Your task to perform on an android device: View the shopping cart on newegg.com. Image 0: 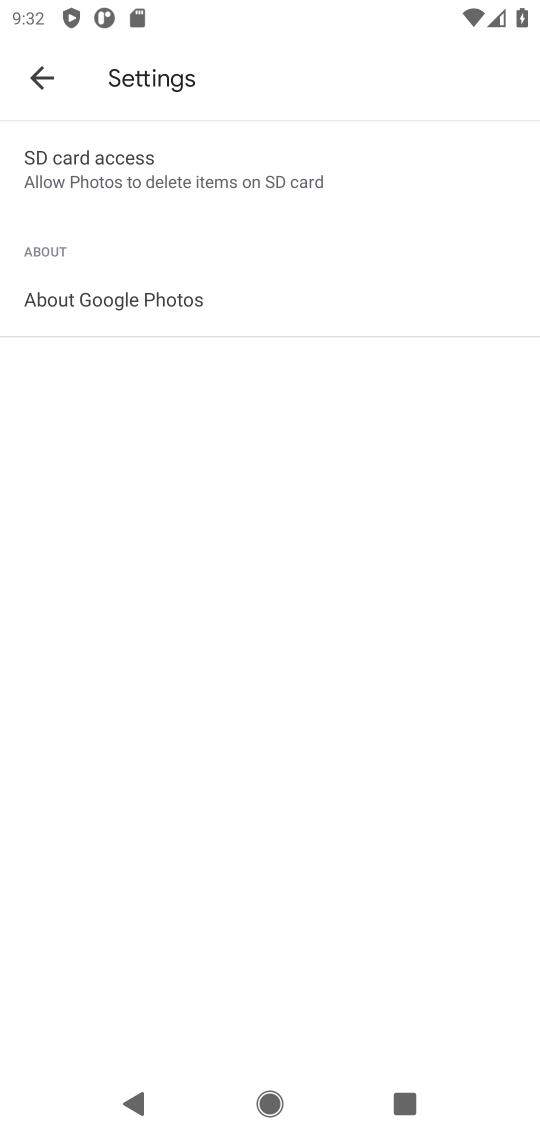
Step 0: press home button
Your task to perform on an android device: View the shopping cart on newegg.com. Image 1: 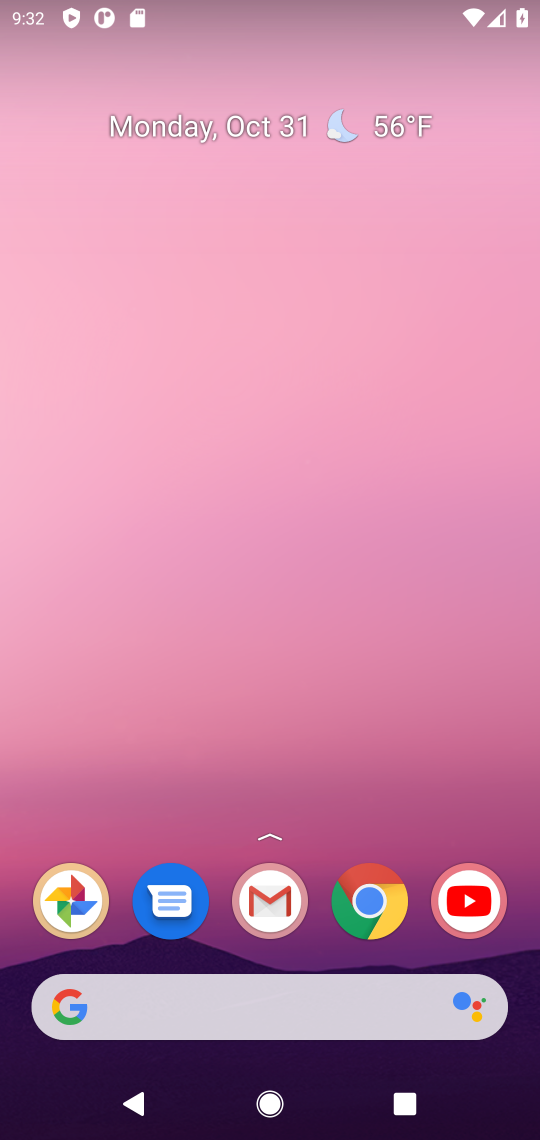
Step 1: drag from (224, 890) to (231, 267)
Your task to perform on an android device: View the shopping cart on newegg.com. Image 2: 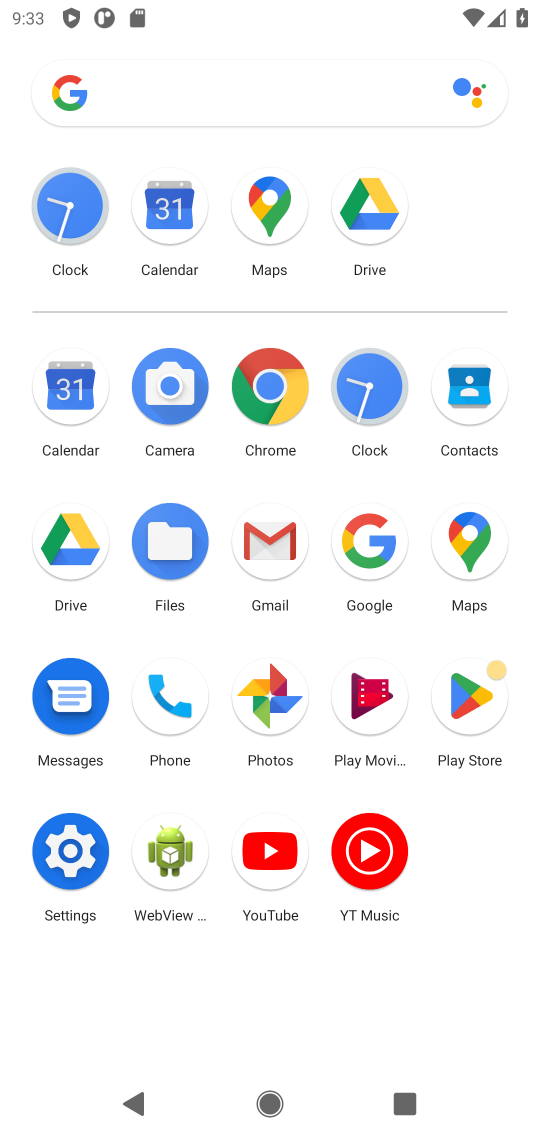
Step 2: click (362, 537)
Your task to perform on an android device: View the shopping cart on newegg.com. Image 3: 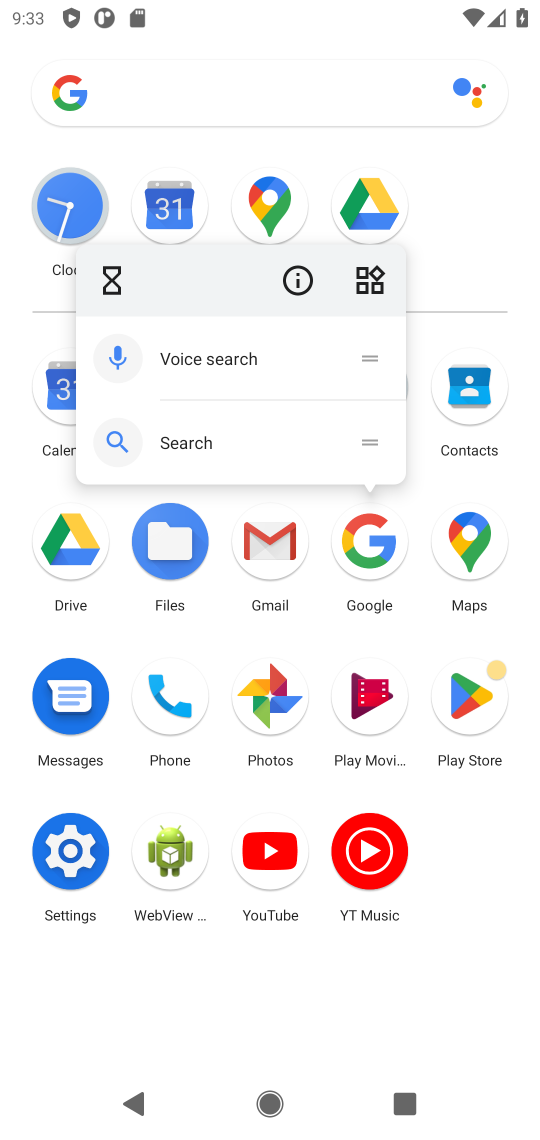
Step 3: click (368, 538)
Your task to perform on an android device: View the shopping cart on newegg.com. Image 4: 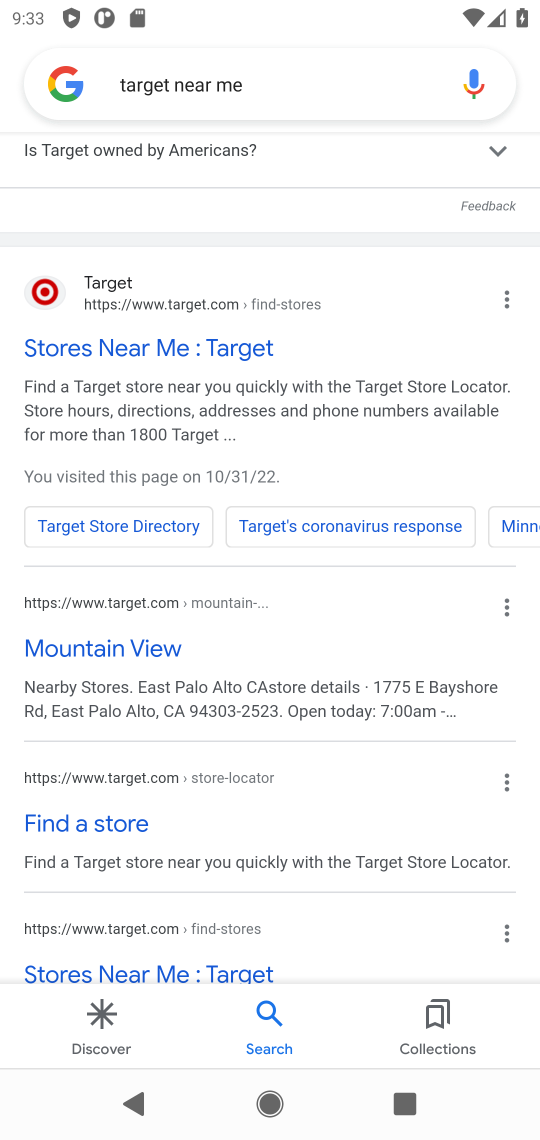
Step 4: click (282, 89)
Your task to perform on an android device: View the shopping cart on newegg.com. Image 5: 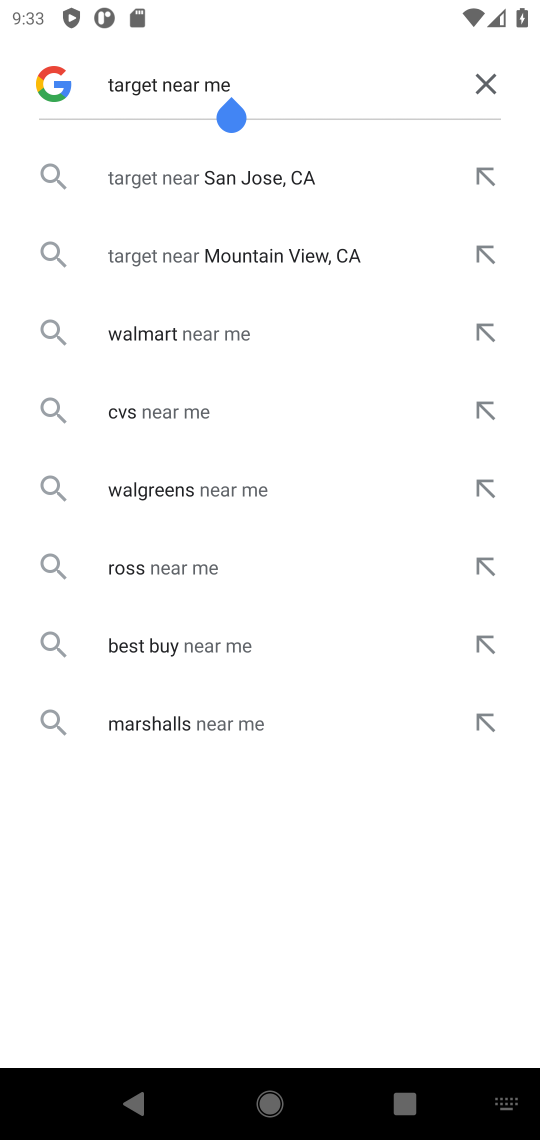
Step 5: click (498, 84)
Your task to perform on an android device: View the shopping cart on newegg.com. Image 6: 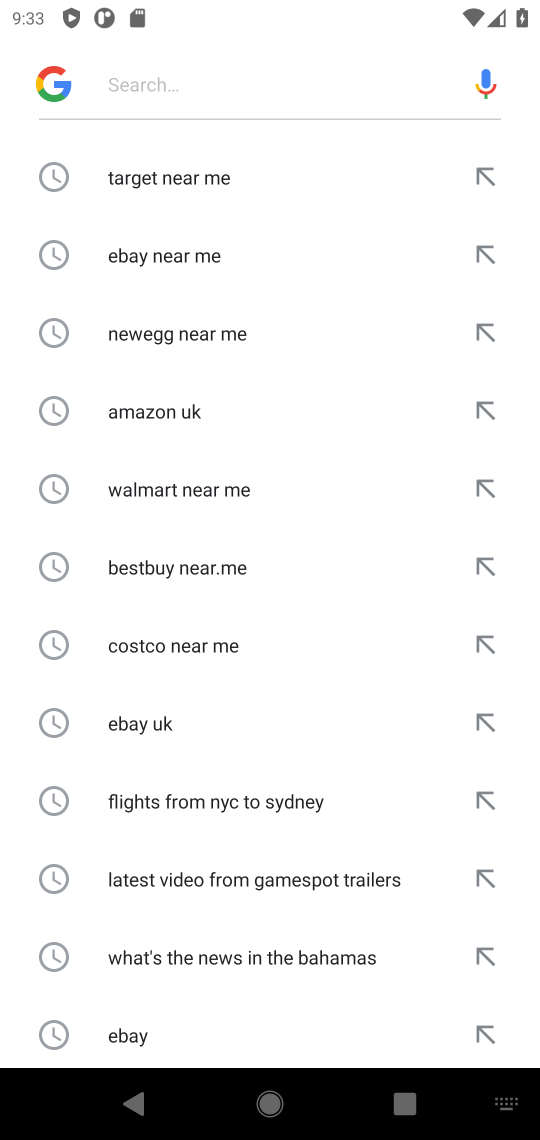
Step 6: click (165, 55)
Your task to perform on an android device: View the shopping cart on newegg.com. Image 7: 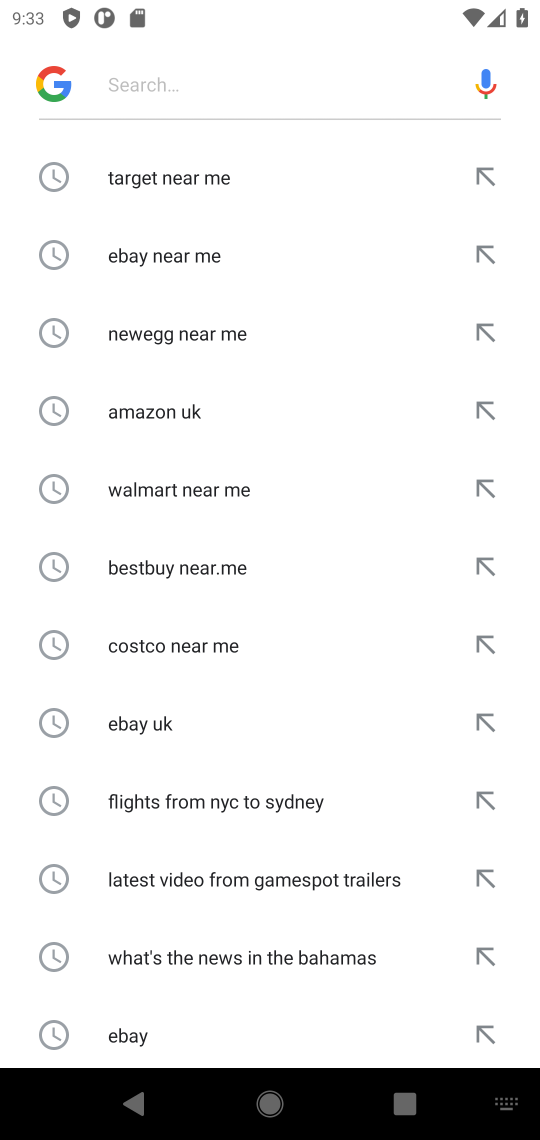
Step 7: type "newegg "
Your task to perform on an android device: View the shopping cart on newegg.com. Image 8: 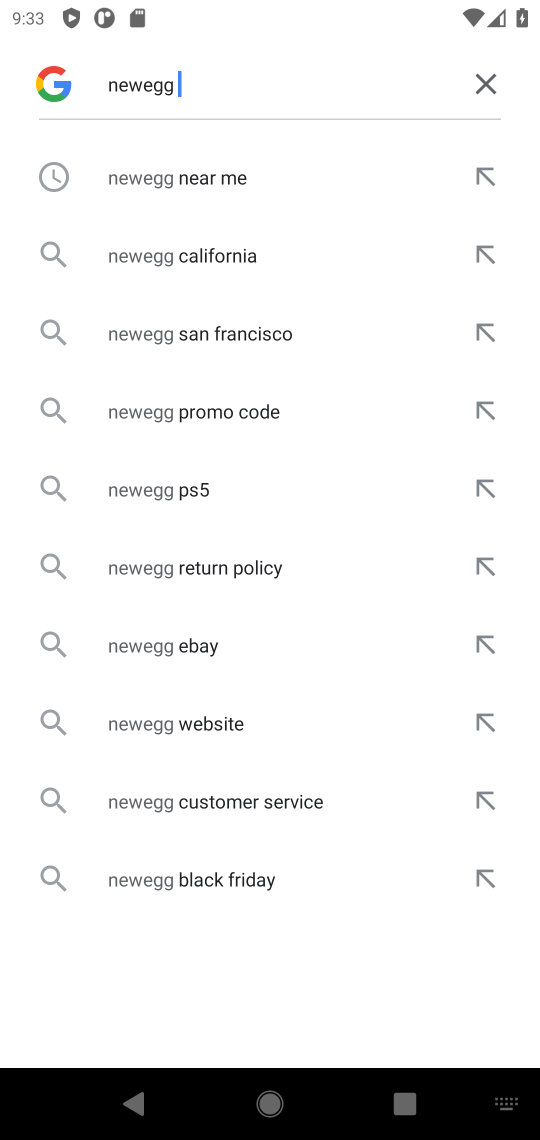
Step 8: click (174, 163)
Your task to perform on an android device: View the shopping cart on newegg.com. Image 9: 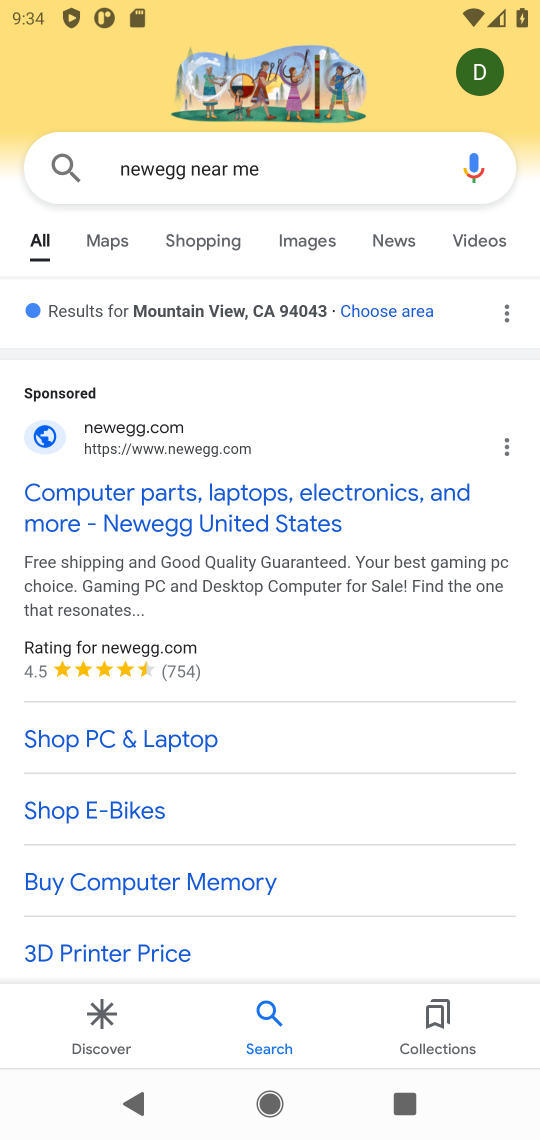
Step 9: drag from (326, 947) to (375, 291)
Your task to perform on an android device: View the shopping cart on newegg.com. Image 10: 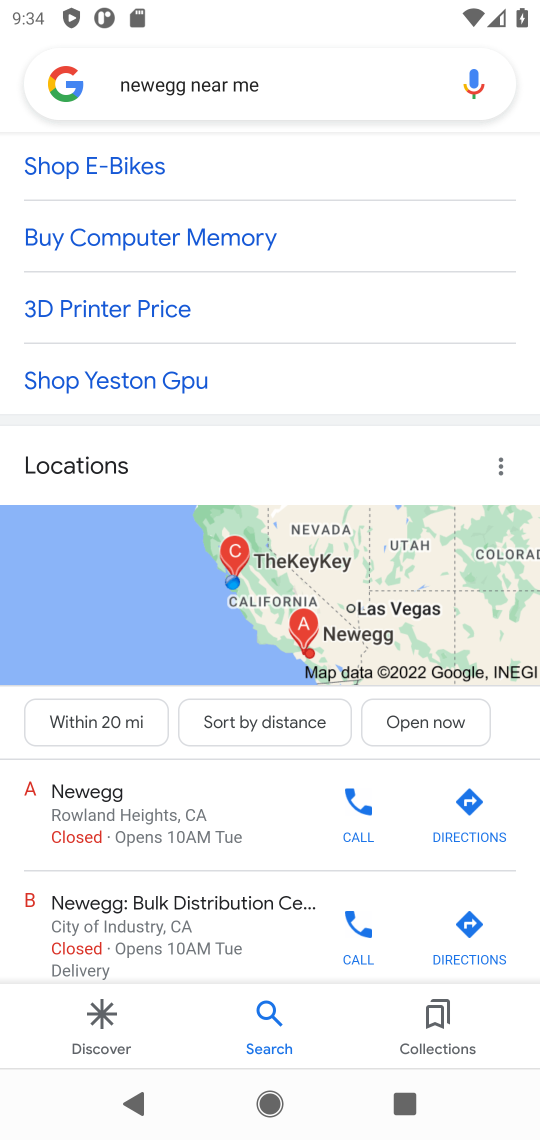
Step 10: drag from (212, 934) to (263, 297)
Your task to perform on an android device: View the shopping cart on newegg.com. Image 11: 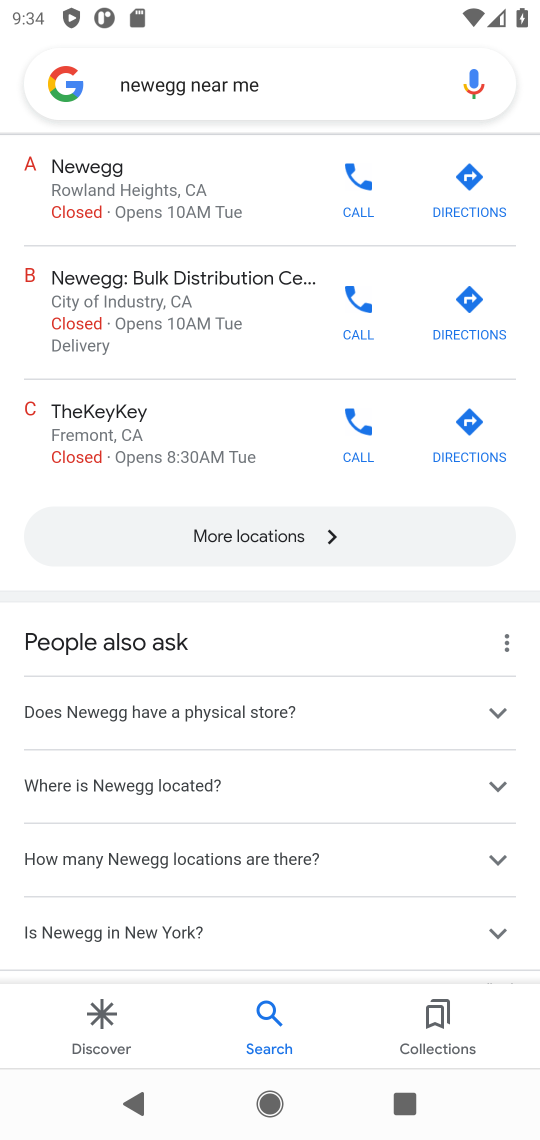
Step 11: drag from (175, 795) to (199, 284)
Your task to perform on an android device: View the shopping cart on newegg.com. Image 12: 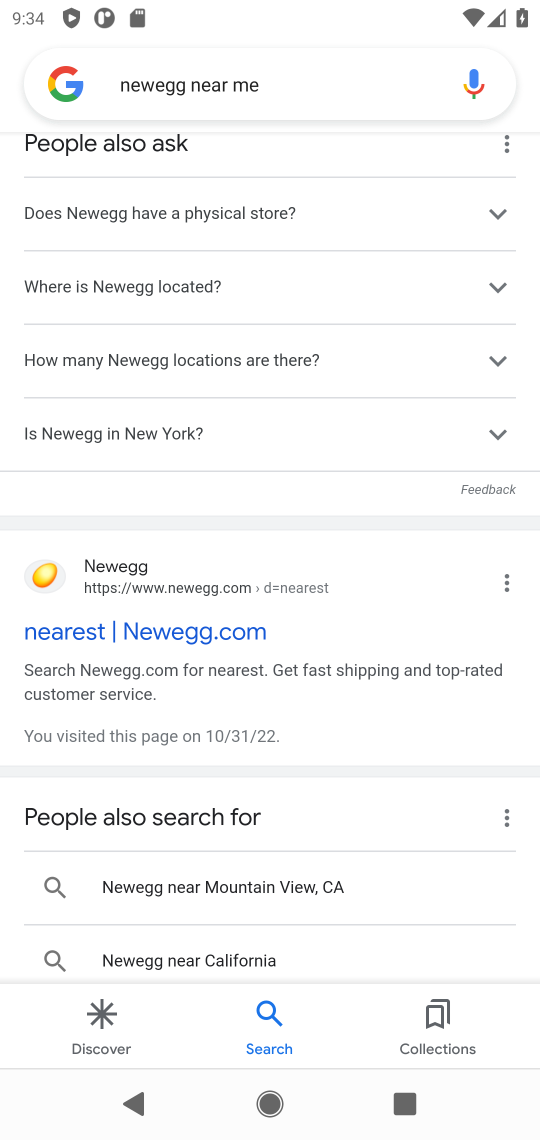
Step 12: click (54, 566)
Your task to perform on an android device: View the shopping cart on newegg.com. Image 13: 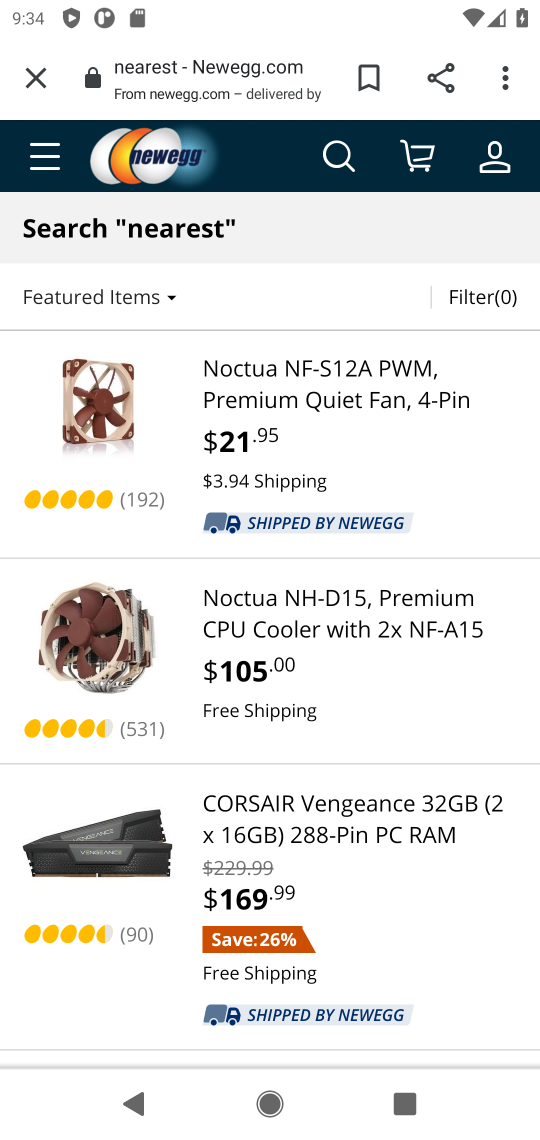
Step 13: click (490, 153)
Your task to perform on an android device: View the shopping cart on newegg.com. Image 14: 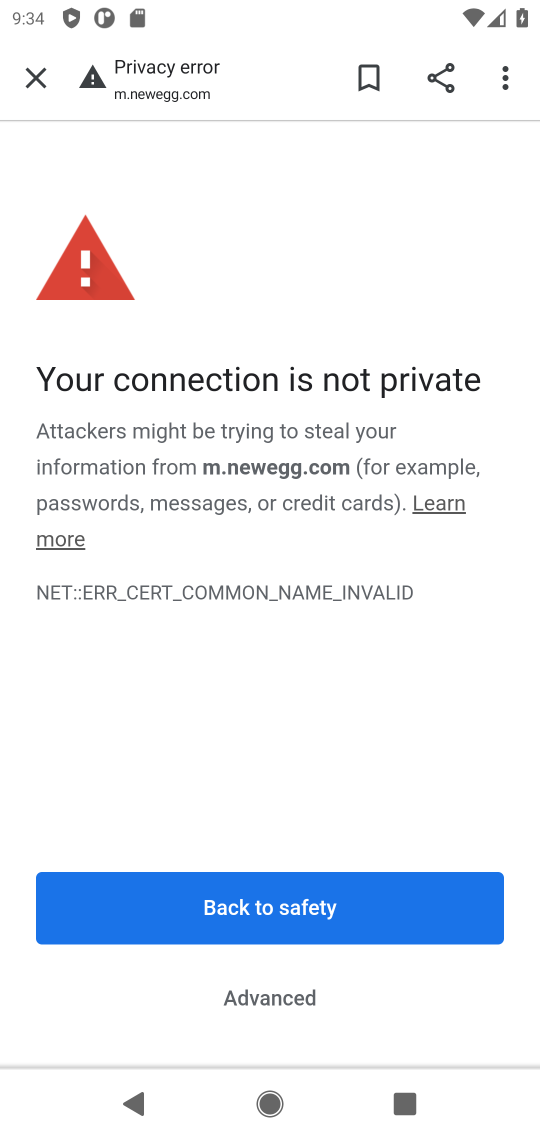
Step 14: click (286, 903)
Your task to perform on an android device: View the shopping cart on newegg.com. Image 15: 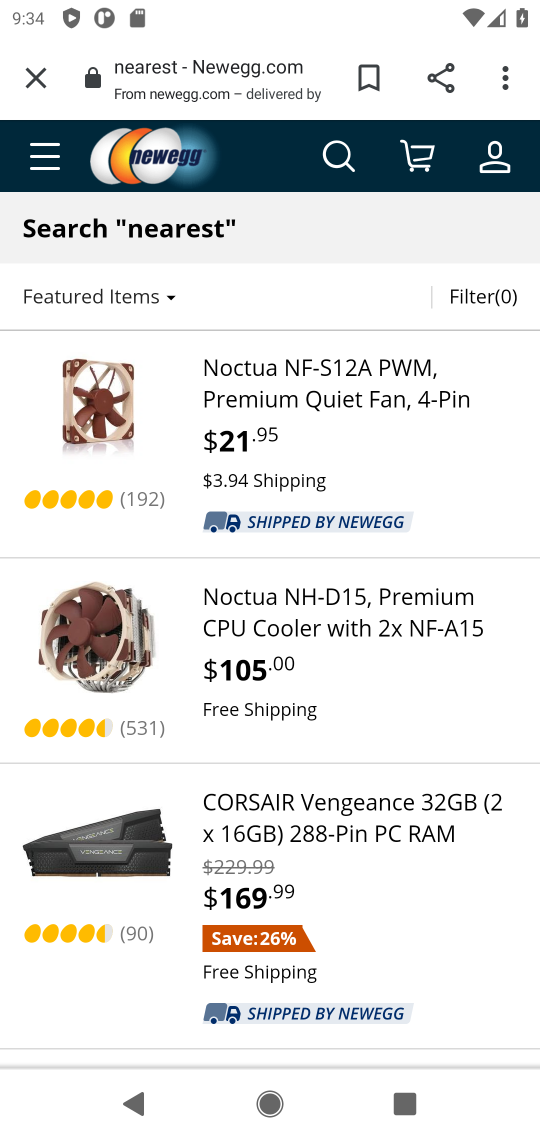
Step 15: click (417, 154)
Your task to perform on an android device: View the shopping cart on newegg.com. Image 16: 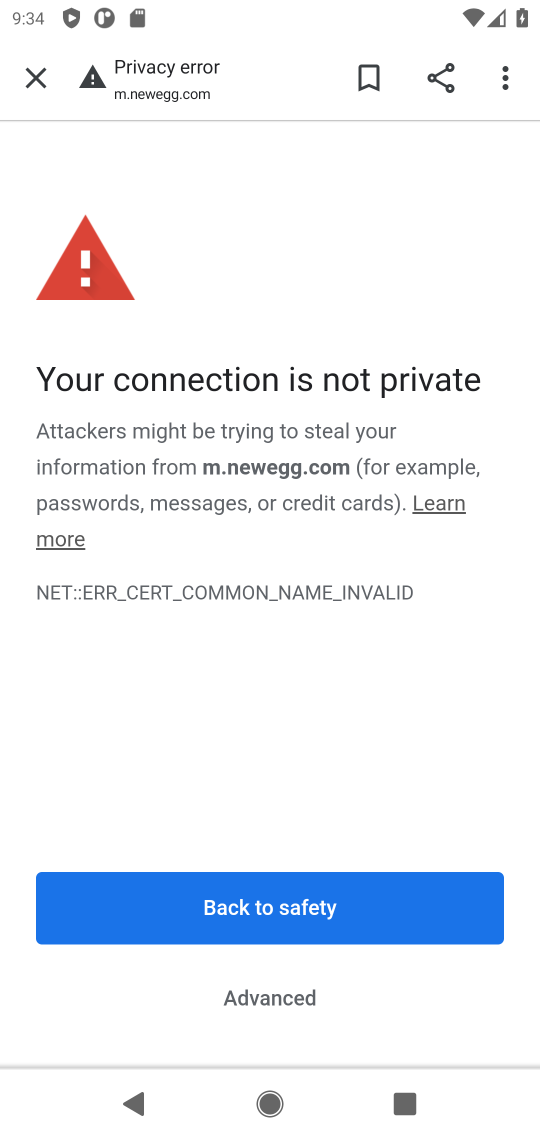
Step 16: click (266, 998)
Your task to perform on an android device: View the shopping cart on newegg.com. Image 17: 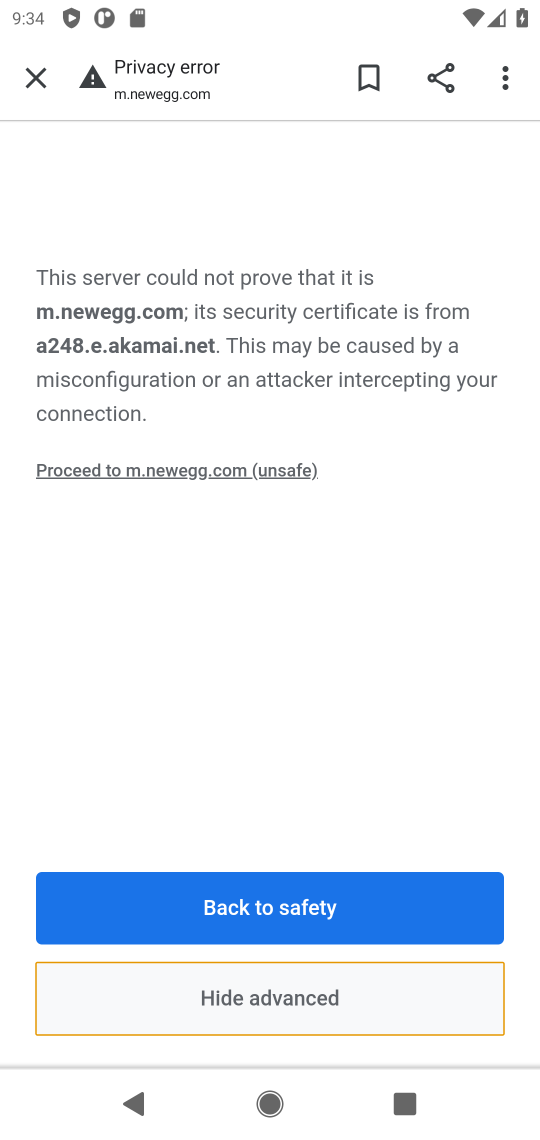
Step 17: task complete